Your task to perform on an android device: install app "Adobe Express: Graphic Design" Image 0: 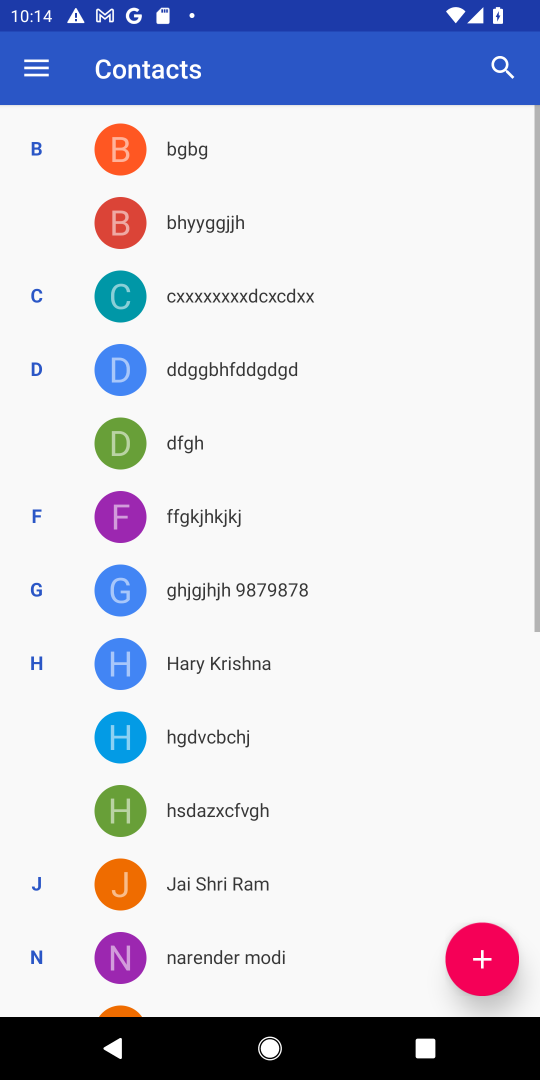
Step 0: press home button
Your task to perform on an android device: install app "Adobe Express: Graphic Design" Image 1: 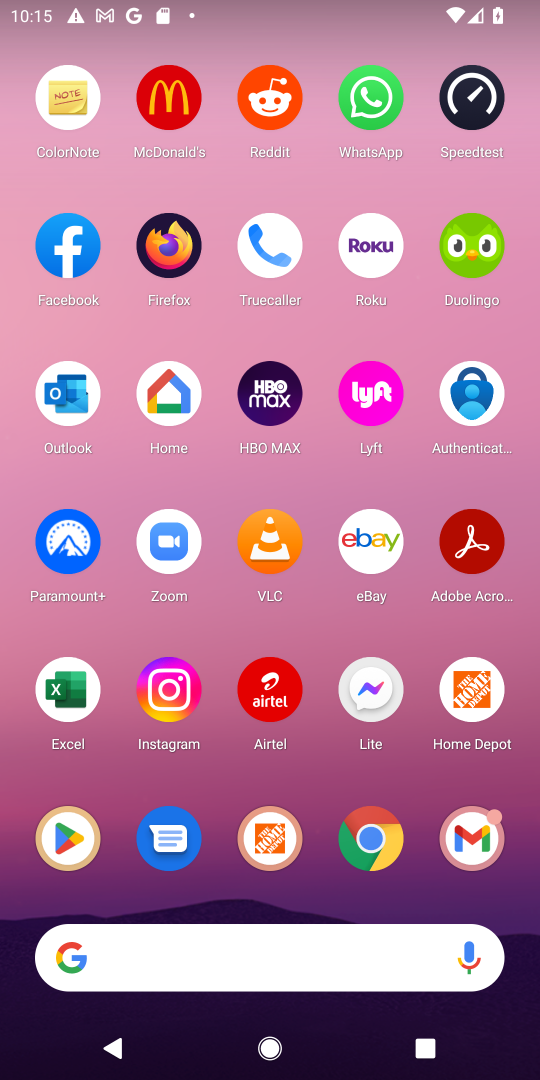
Step 1: drag from (516, 878) to (534, 221)
Your task to perform on an android device: install app "Adobe Express: Graphic Design" Image 2: 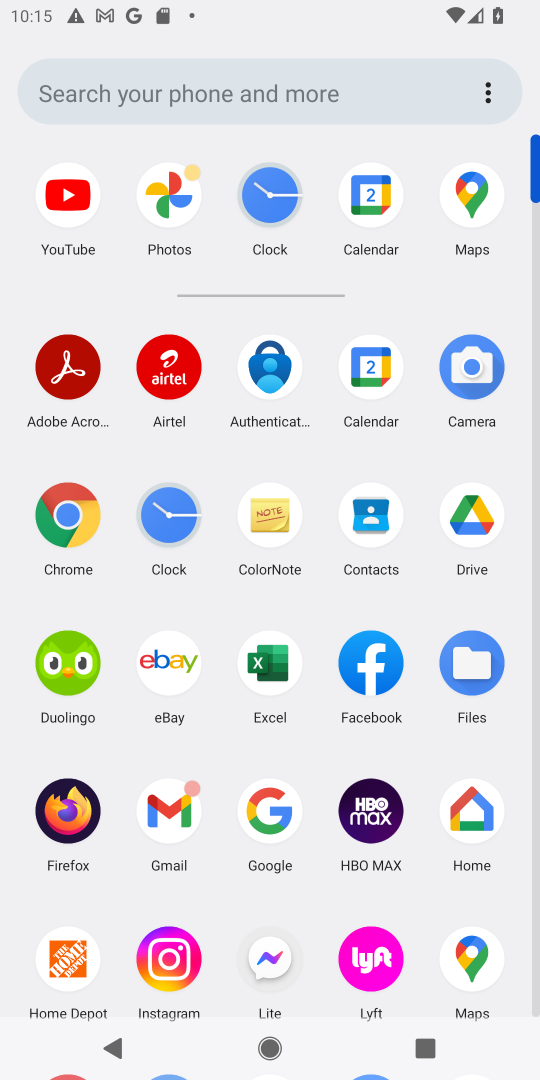
Step 2: drag from (301, 903) to (319, 552)
Your task to perform on an android device: install app "Adobe Express: Graphic Design" Image 3: 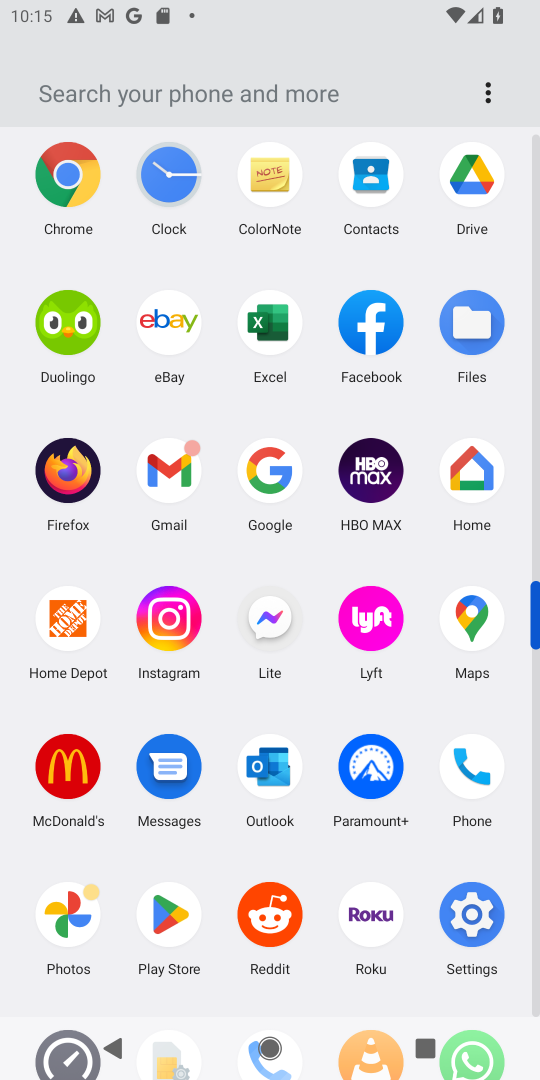
Step 3: click (166, 922)
Your task to perform on an android device: install app "Adobe Express: Graphic Design" Image 4: 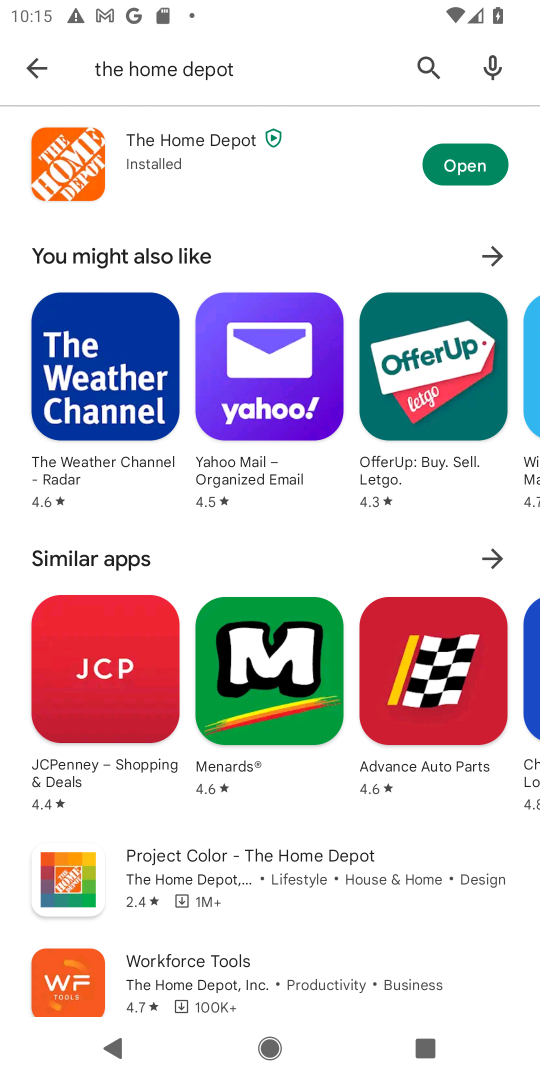
Step 4: click (433, 69)
Your task to perform on an android device: install app "Adobe Express: Graphic Design" Image 5: 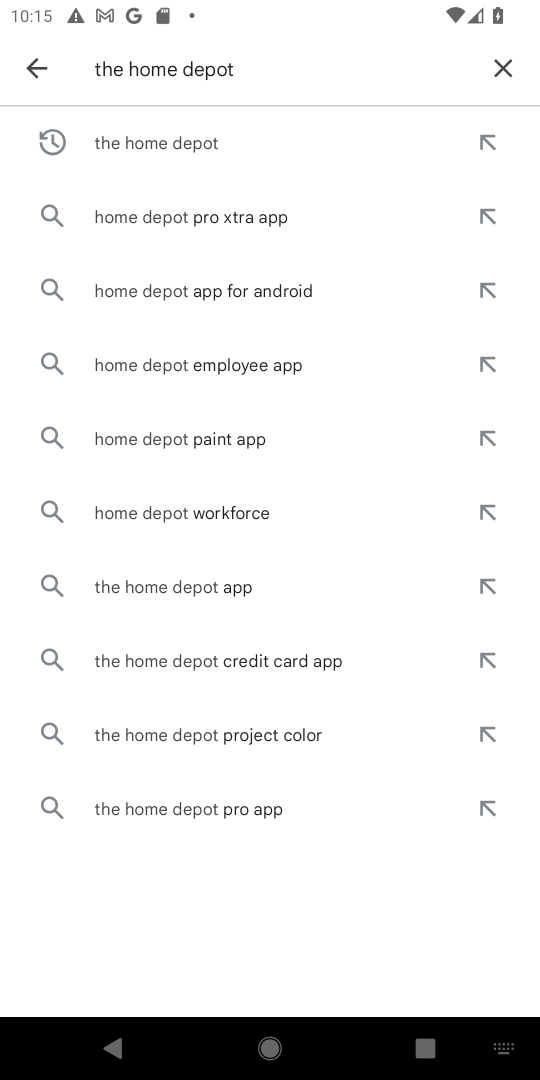
Step 5: click (517, 63)
Your task to perform on an android device: install app "Adobe Express: Graphic Design" Image 6: 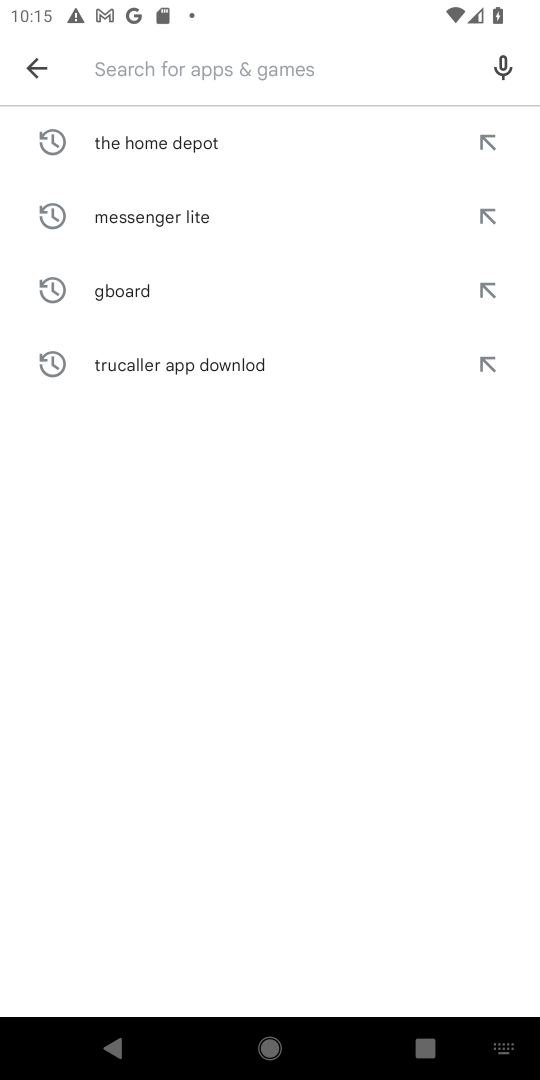
Step 6: click (383, 85)
Your task to perform on an android device: install app "Adobe Express: Graphic Design" Image 7: 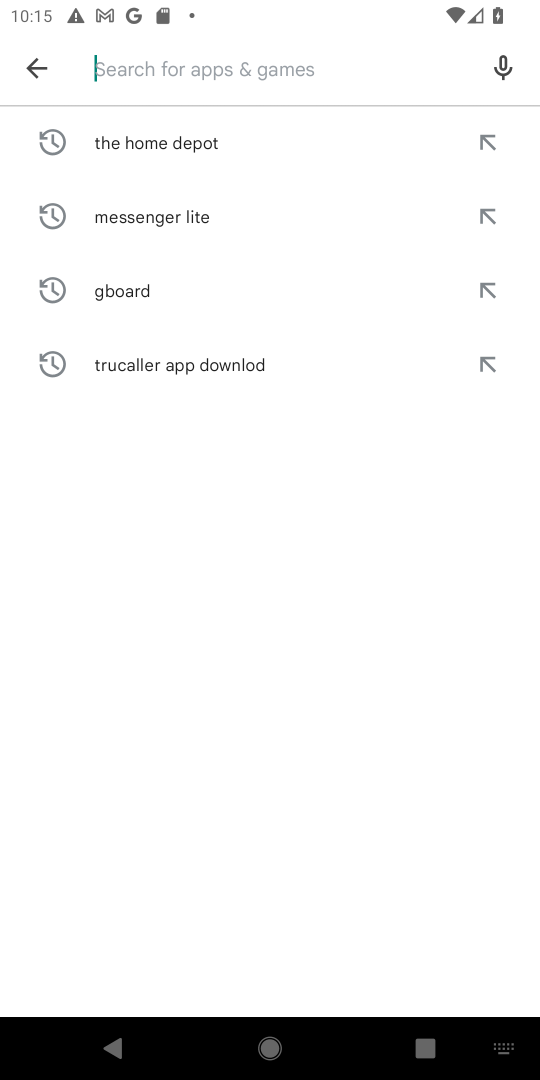
Step 7: type "adobe express graphic design"
Your task to perform on an android device: install app "Adobe Express: Graphic Design" Image 8: 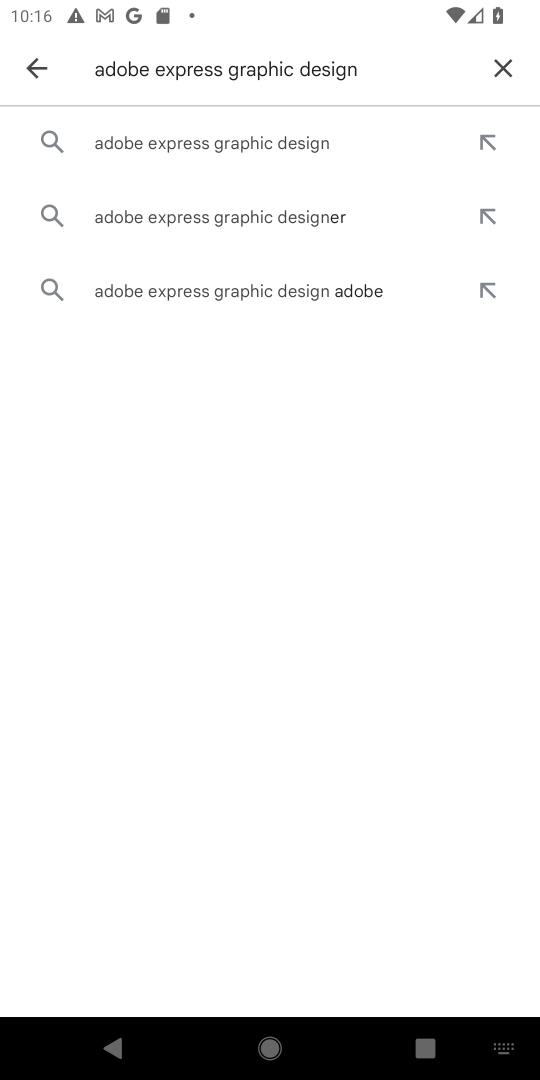
Step 8: click (353, 147)
Your task to perform on an android device: install app "Adobe Express: Graphic Design" Image 9: 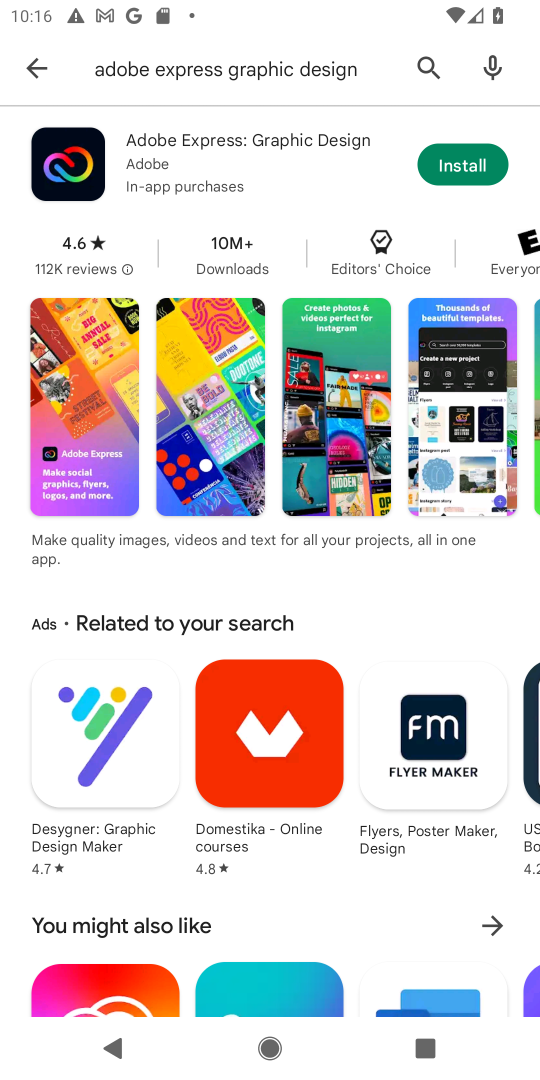
Step 9: click (454, 161)
Your task to perform on an android device: install app "Adobe Express: Graphic Design" Image 10: 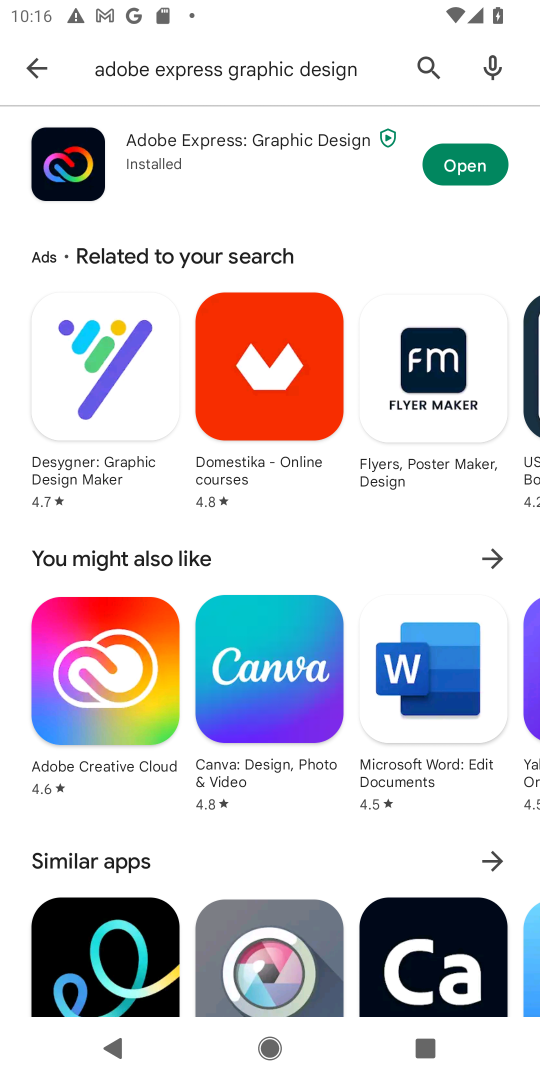
Step 10: task complete